Your task to perform on an android device: toggle location history Image 0: 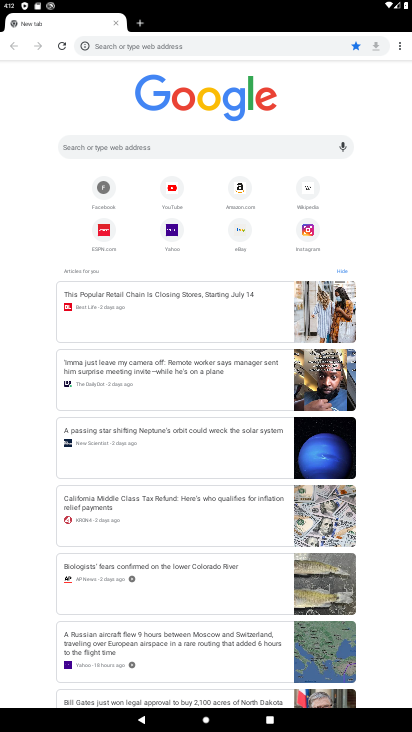
Step 0: press home button
Your task to perform on an android device: toggle location history Image 1: 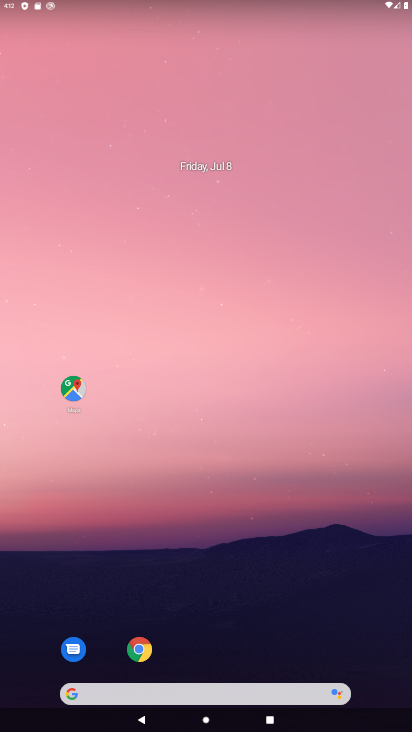
Step 1: drag from (216, 635) to (260, 38)
Your task to perform on an android device: toggle location history Image 2: 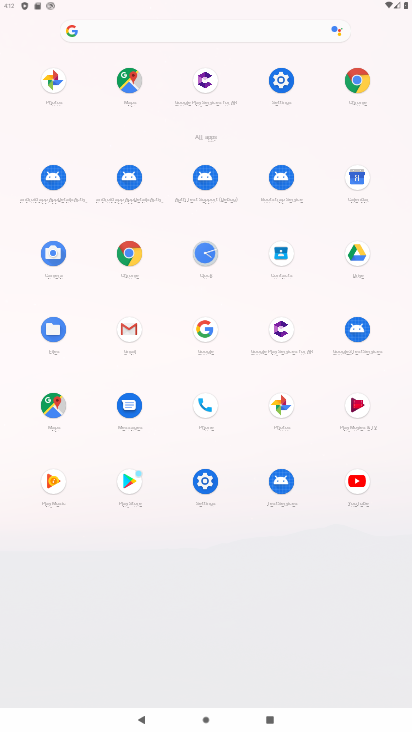
Step 2: click (214, 479)
Your task to perform on an android device: toggle location history Image 3: 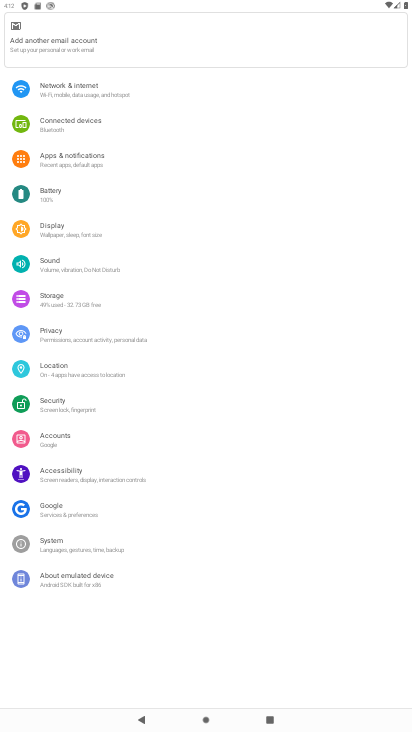
Step 3: click (82, 372)
Your task to perform on an android device: toggle location history Image 4: 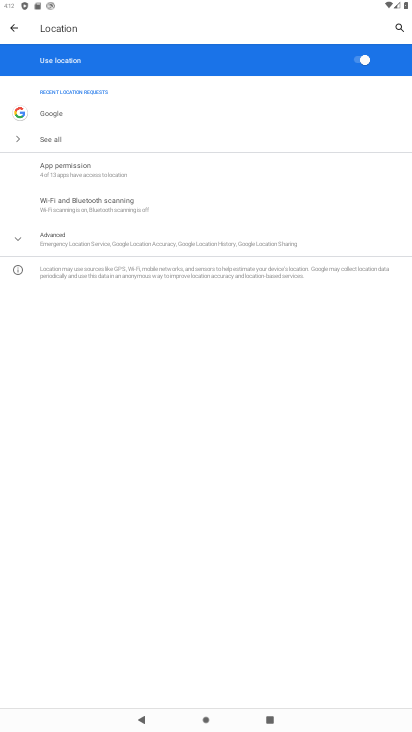
Step 4: click (121, 241)
Your task to perform on an android device: toggle location history Image 5: 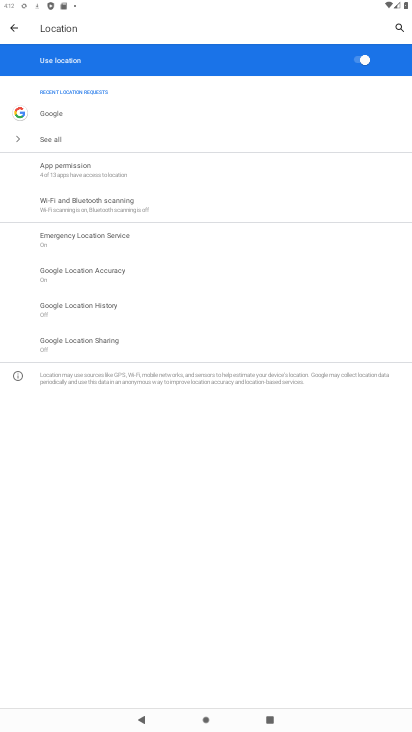
Step 5: click (115, 305)
Your task to perform on an android device: toggle location history Image 6: 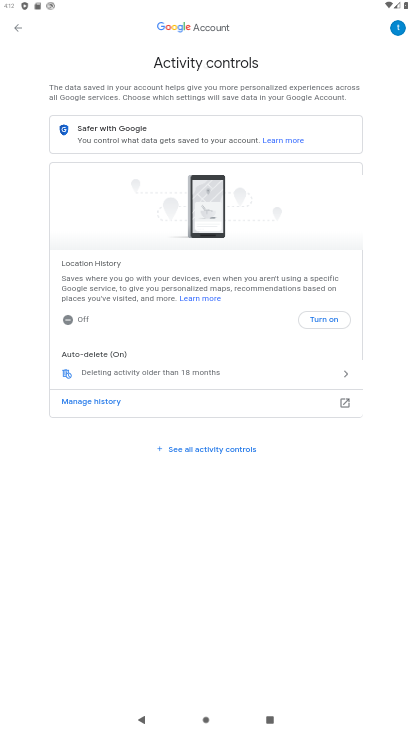
Step 6: click (337, 315)
Your task to perform on an android device: toggle location history Image 7: 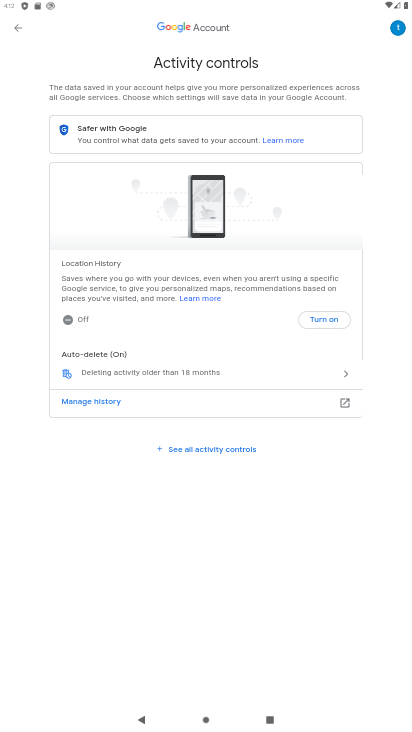
Step 7: click (326, 317)
Your task to perform on an android device: toggle location history Image 8: 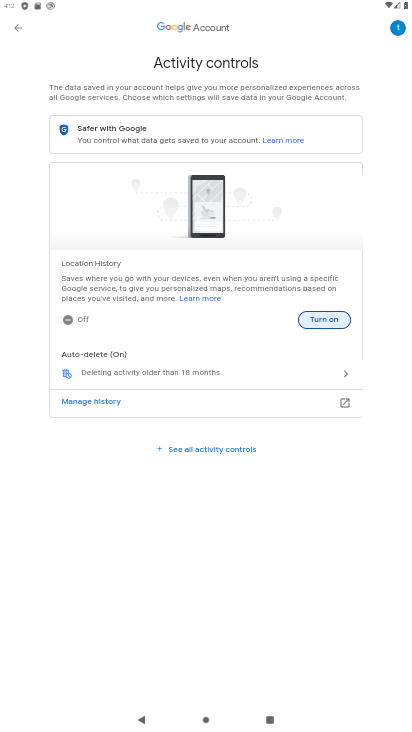
Step 8: click (326, 317)
Your task to perform on an android device: toggle location history Image 9: 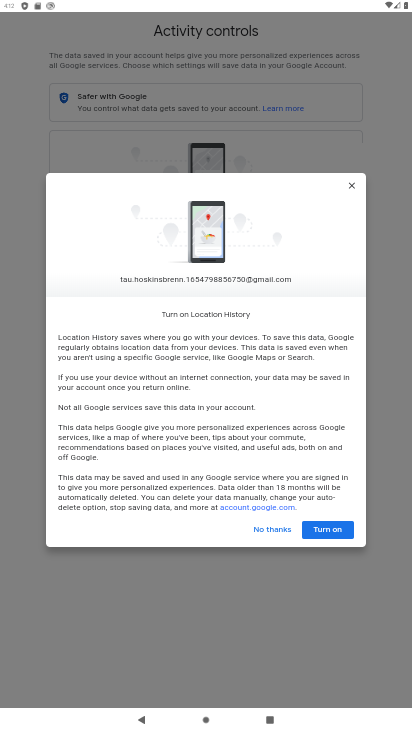
Step 9: click (343, 529)
Your task to perform on an android device: toggle location history Image 10: 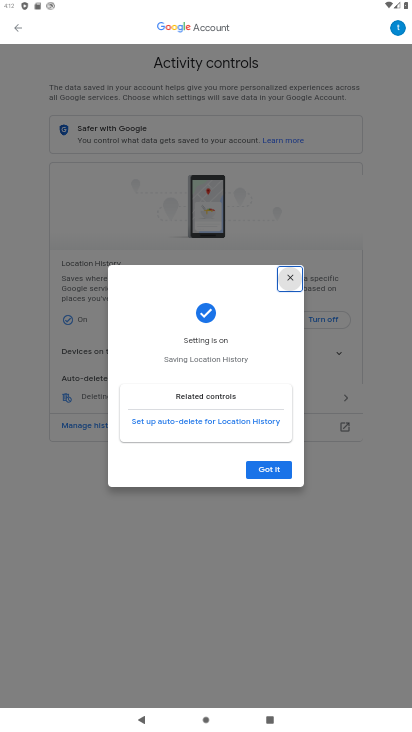
Step 10: click (278, 456)
Your task to perform on an android device: toggle location history Image 11: 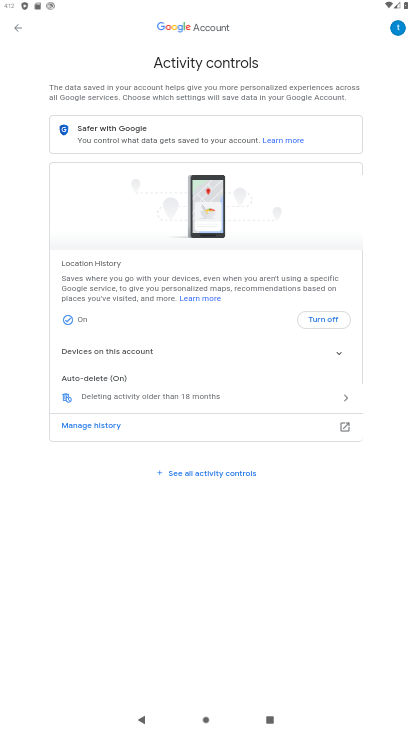
Step 11: task complete